Your task to perform on an android device: Add acer predator to the cart on bestbuy.com, then select checkout. Image 0: 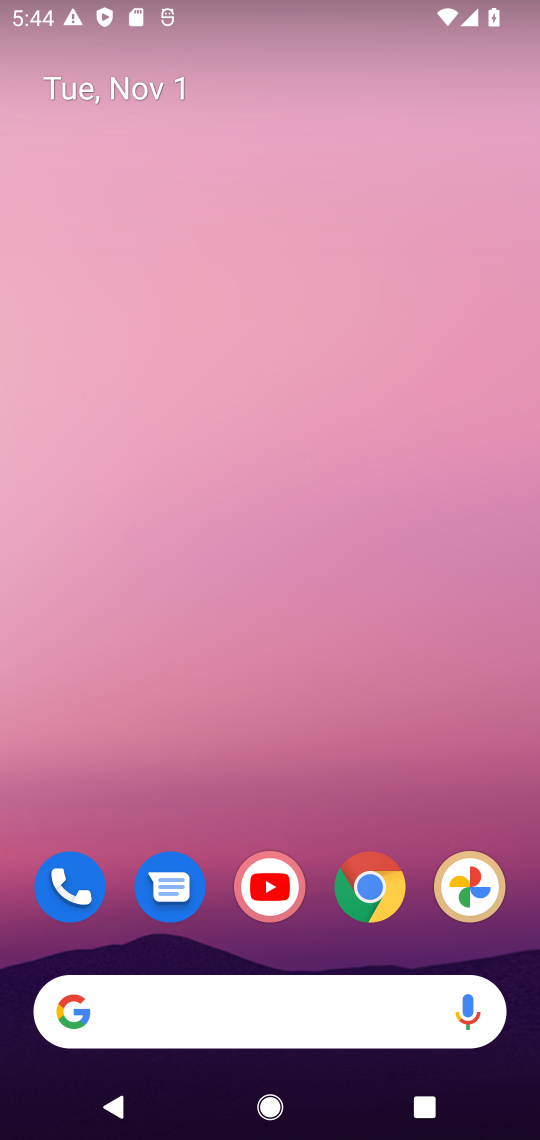
Step 0: press home button
Your task to perform on an android device: Add acer predator to the cart on bestbuy.com, then select checkout. Image 1: 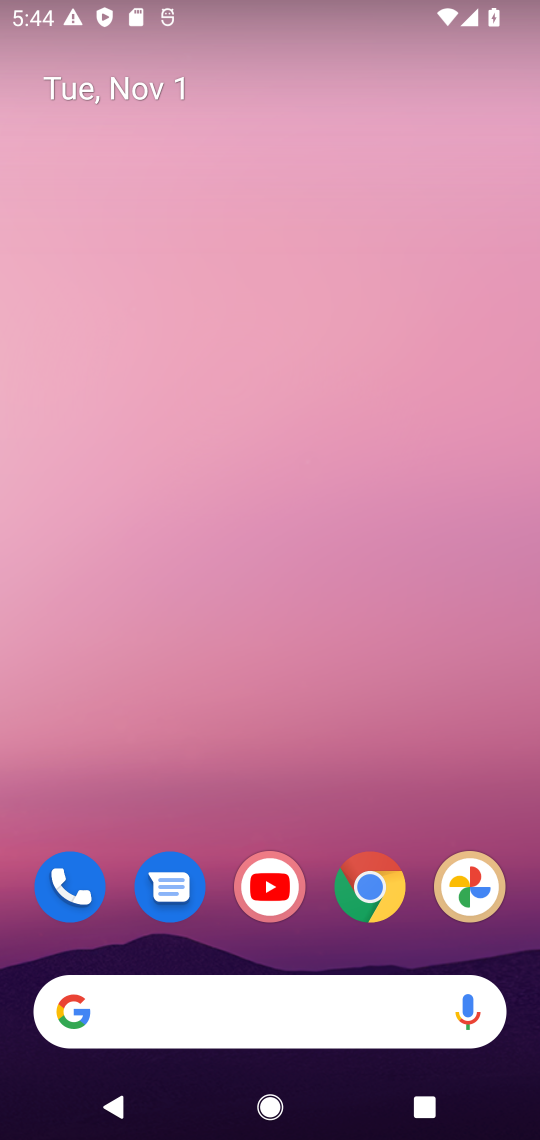
Step 1: drag from (320, 836) to (354, 0)
Your task to perform on an android device: Add acer predator to the cart on bestbuy.com, then select checkout. Image 2: 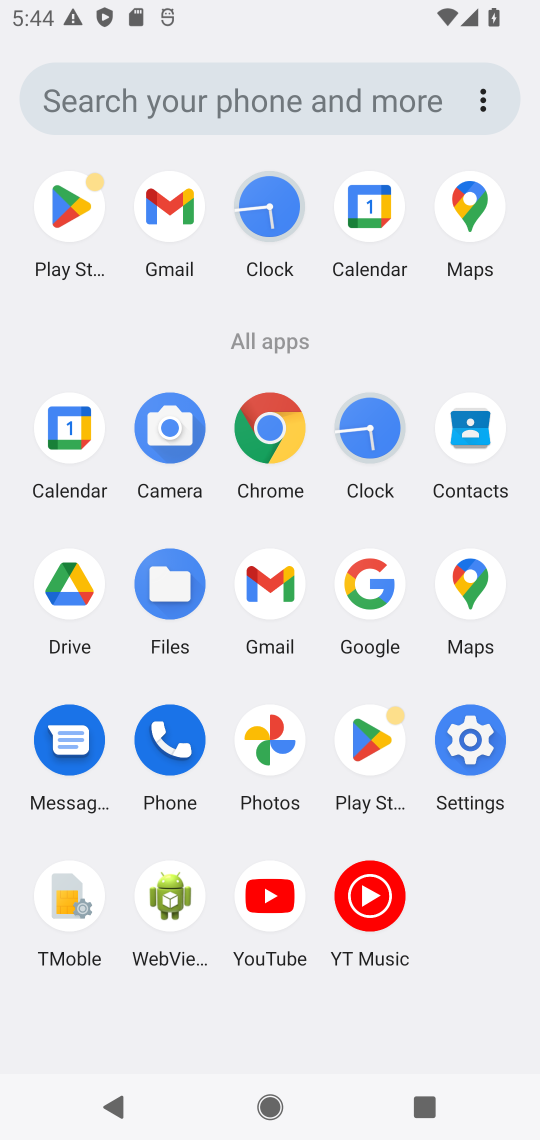
Step 2: click (265, 417)
Your task to perform on an android device: Add acer predator to the cart on bestbuy.com, then select checkout. Image 3: 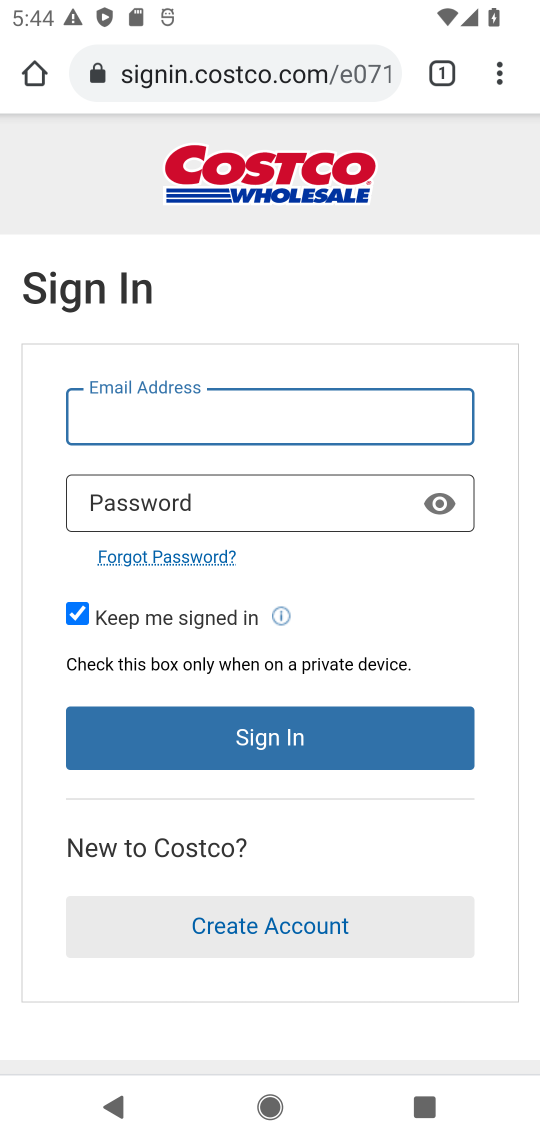
Step 3: click (194, 59)
Your task to perform on an android device: Add acer predator to the cart on bestbuy.com, then select checkout. Image 4: 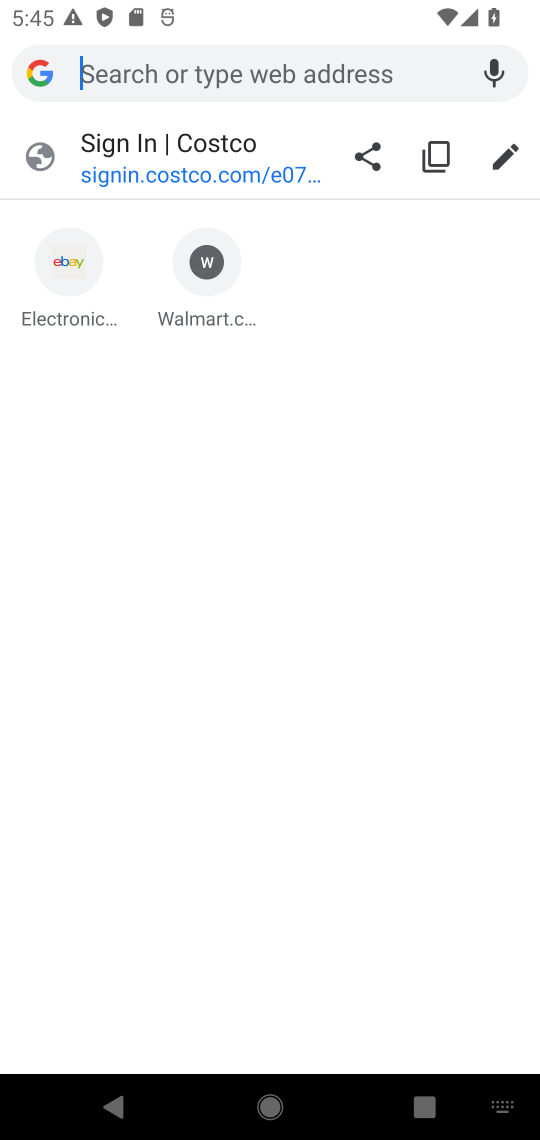
Step 4: type "bestbuy.com"
Your task to perform on an android device: Add acer predator to the cart on bestbuy.com, then select checkout. Image 5: 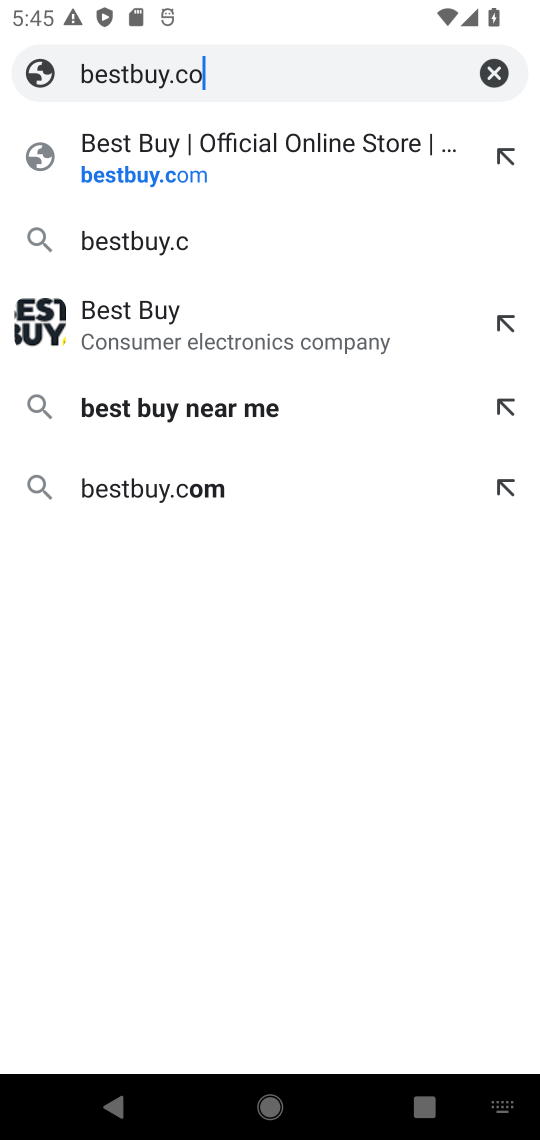
Step 5: type ""
Your task to perform on an android device: Add acer predator to the cart on bestbuy.com, then select checkout. Image 6: 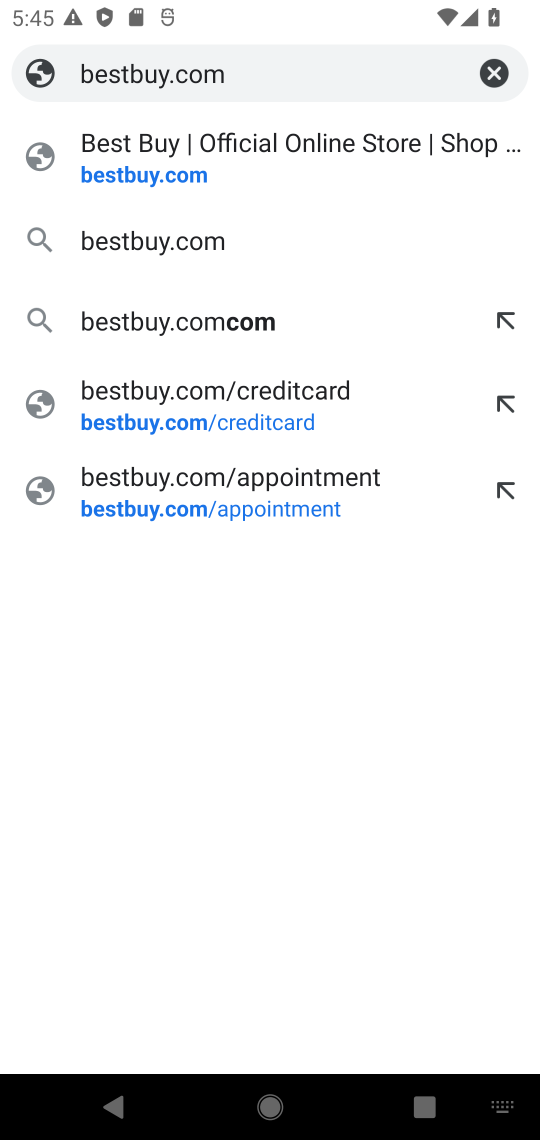
Step 6: click (245, 178)
Your task to perform on an android device: Add acer predator to the cart on bestbuy.com, then select checkout. Image 7: 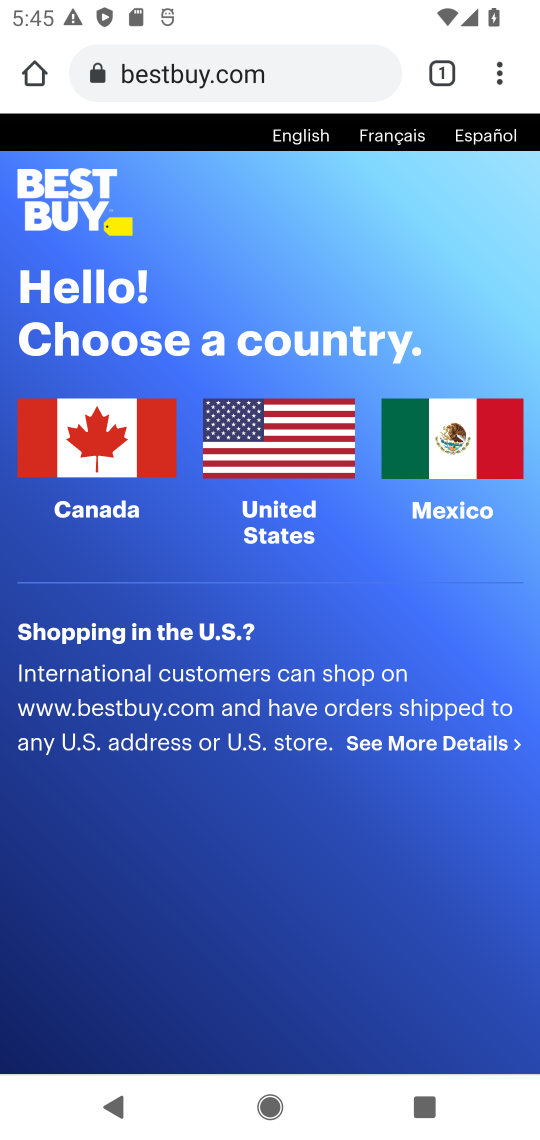
Step 7: click (294, 435)
Your task to perform on an android device: Add acer predator to the cart on bestbuy.com, then select checkout. Image 8: 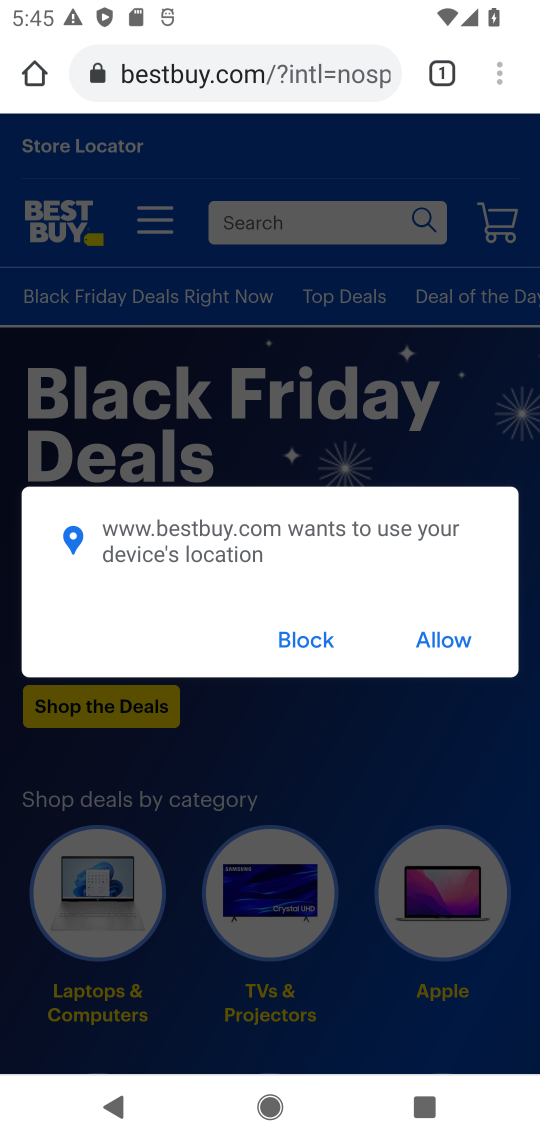
Step 8: click (437, 640)
Your task to perform on an android device: Add acer predator to the cart on bestbuy.com, then select checkout. Image 9: 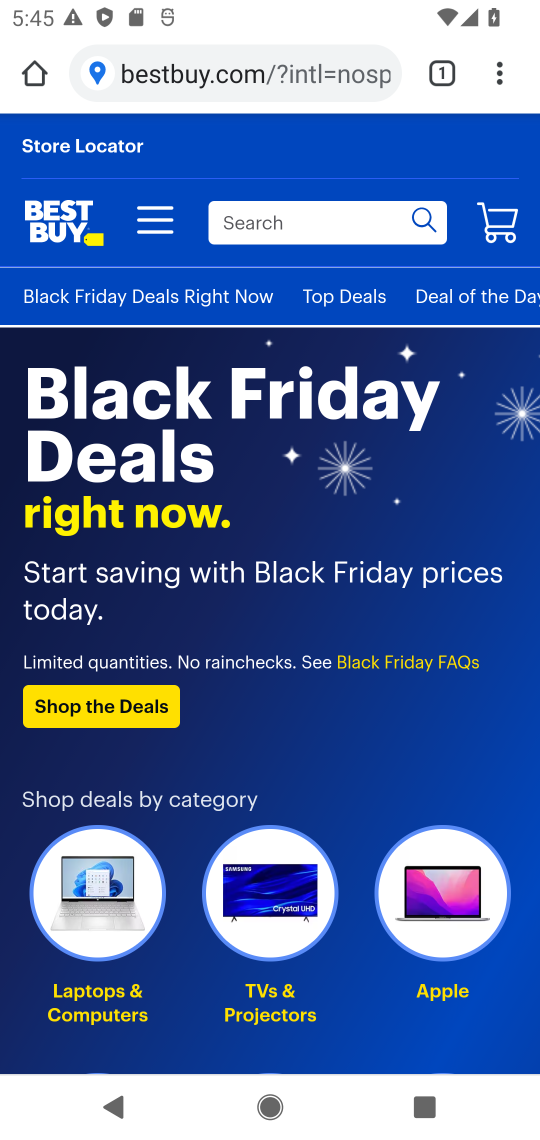
Step 9: drag from (339, 797) to (366, 189)
Your task to perform on an android device: Add acer predator to the cart on bestbuy.com, then select checkout. Image 10: 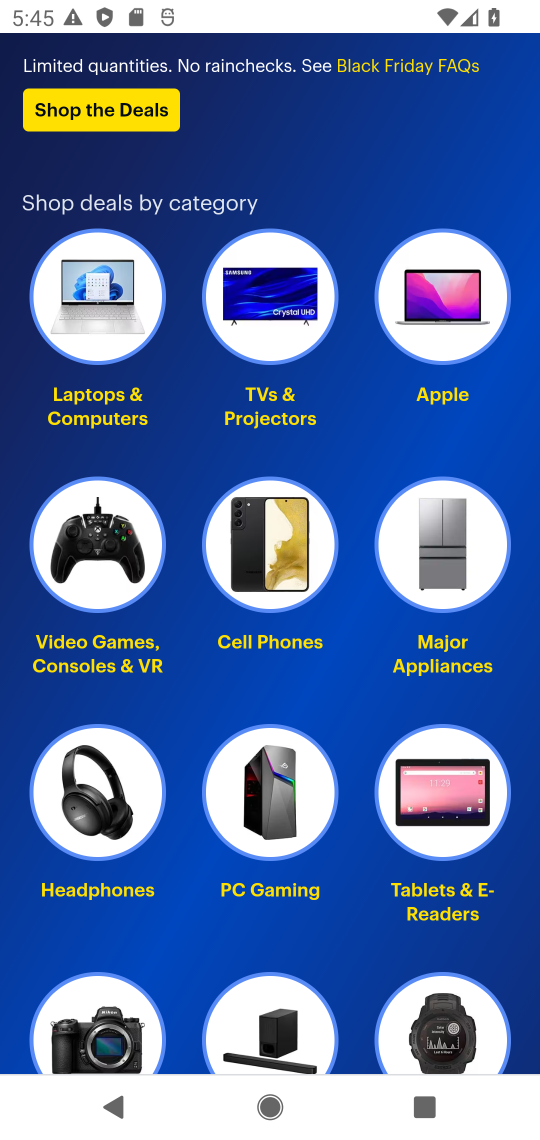
Step 10: drag from (354, 479) to (349, 855)
Your task to perform on an android device: Add acer predator to the cart on bestbuy.com, then select checkout. Image 11: 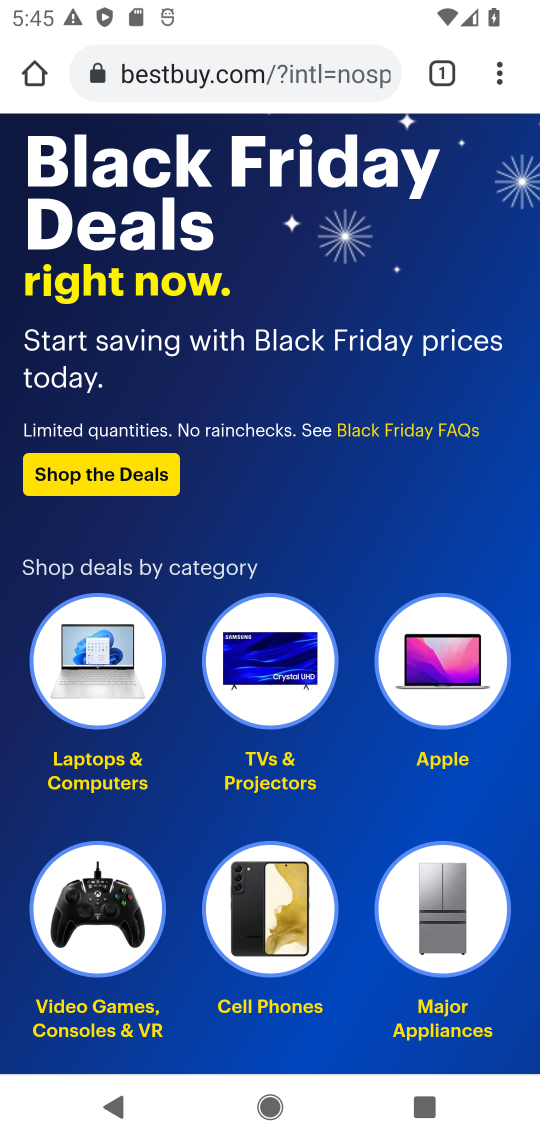
Step 11: drag from (300, 274) to (281, 819)
Your task to perform on an android device: Add acer predator to the cart on bestbuy.com, then select checkout. Image 12: 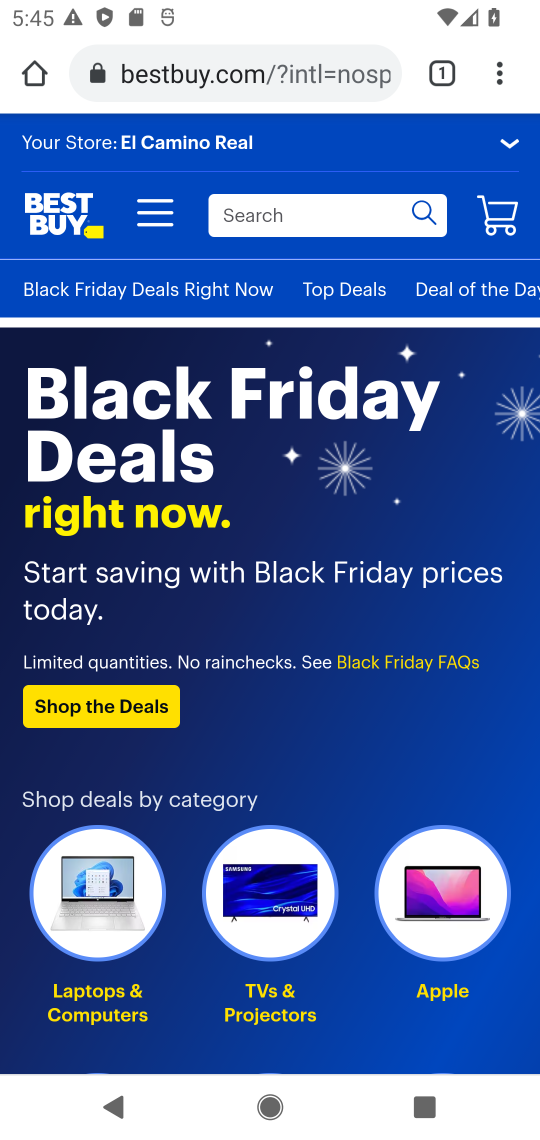
Step 12: click (270, 200)
Your task to perform on an android device: Add acer predator to the cart on bestbuy.com, then select checkout. Image 13: 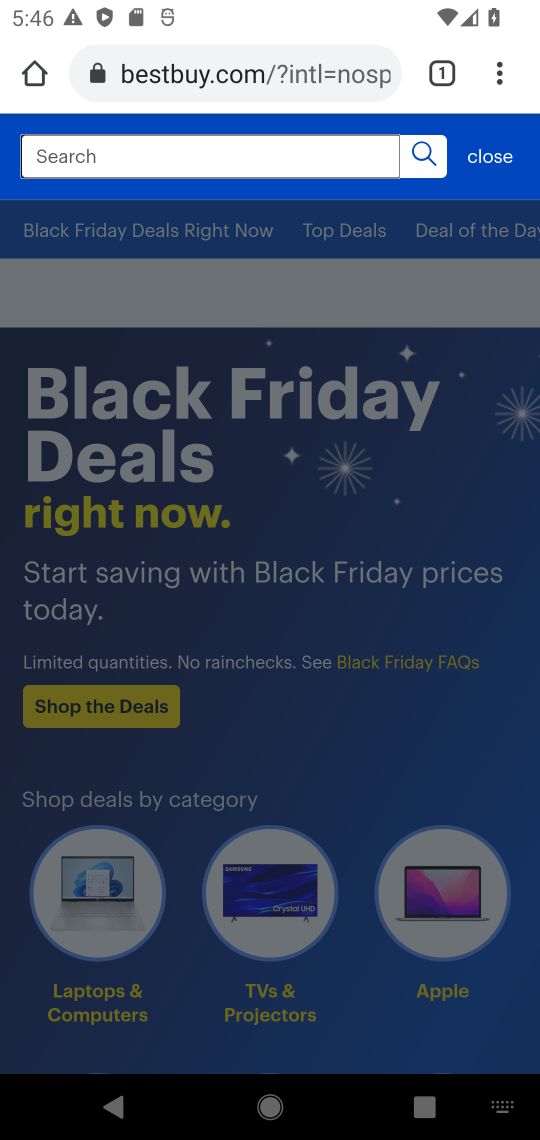
Step 13: type "acer predator"
Your task to perform on an android device: Add acer predator to the cart on bestbuy.com, then select checkout. Image 14: 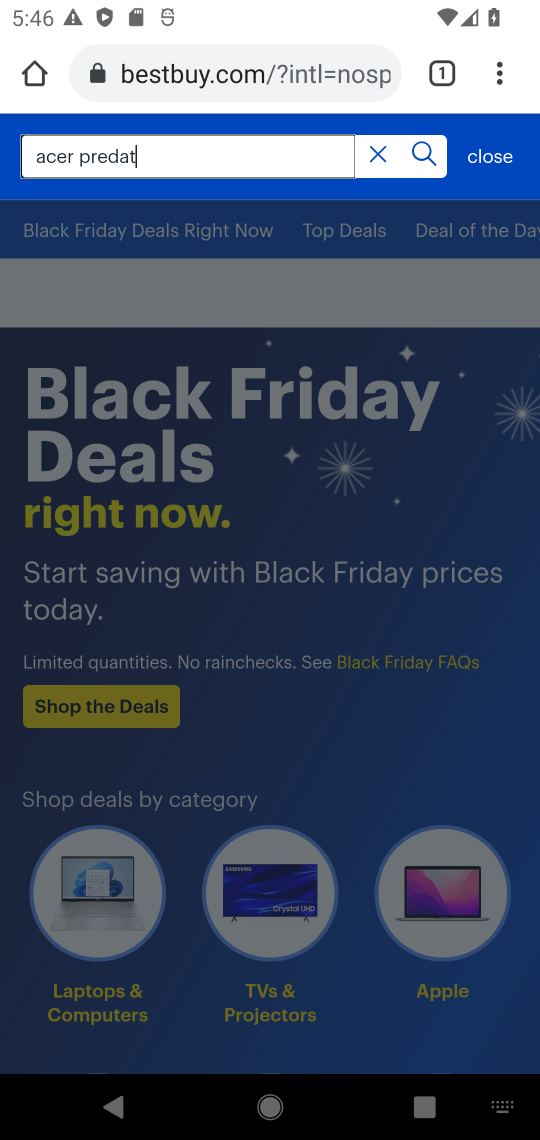
Step 14: type ""
Your task to perform on an android device: Add acer predator to the cart on bestbuy.com, then select checkout. Image 15: 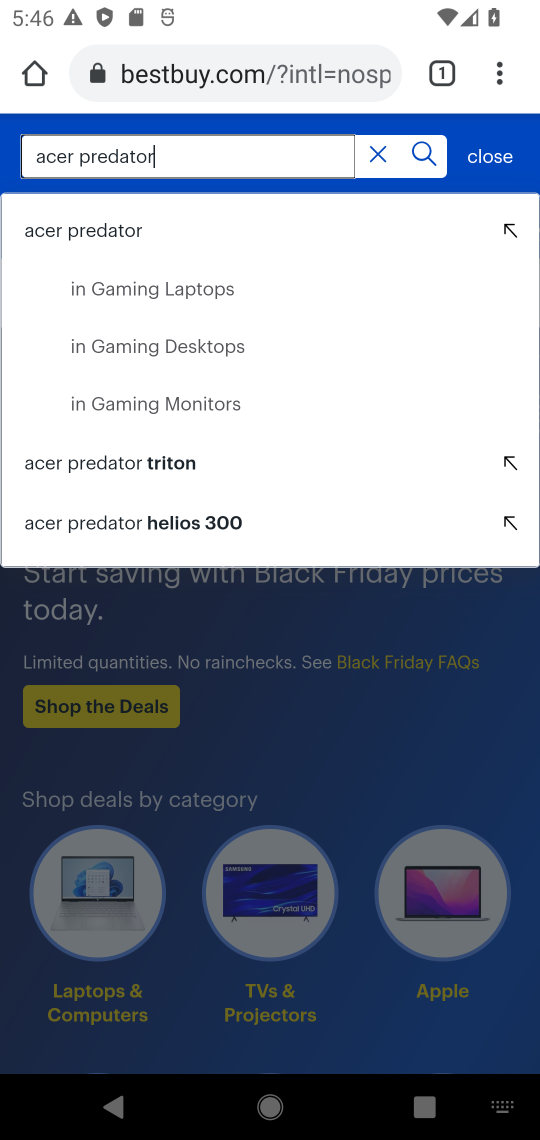
Step 15: click (130, 228)
Your task to perform on an android device: Add acer predator to the cart on bestbuy.com, then select checkout. Image 16: 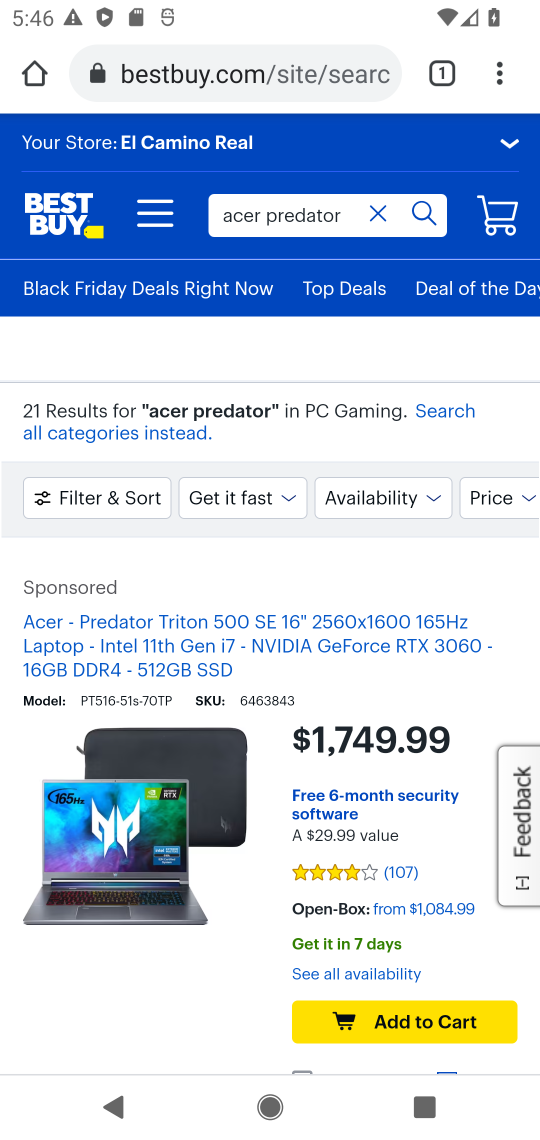
Step 16: click (192, 620)
Your task to perform on an android device: Add acer predator to the cart on bestbuy.com, then select checkout. Image 17: 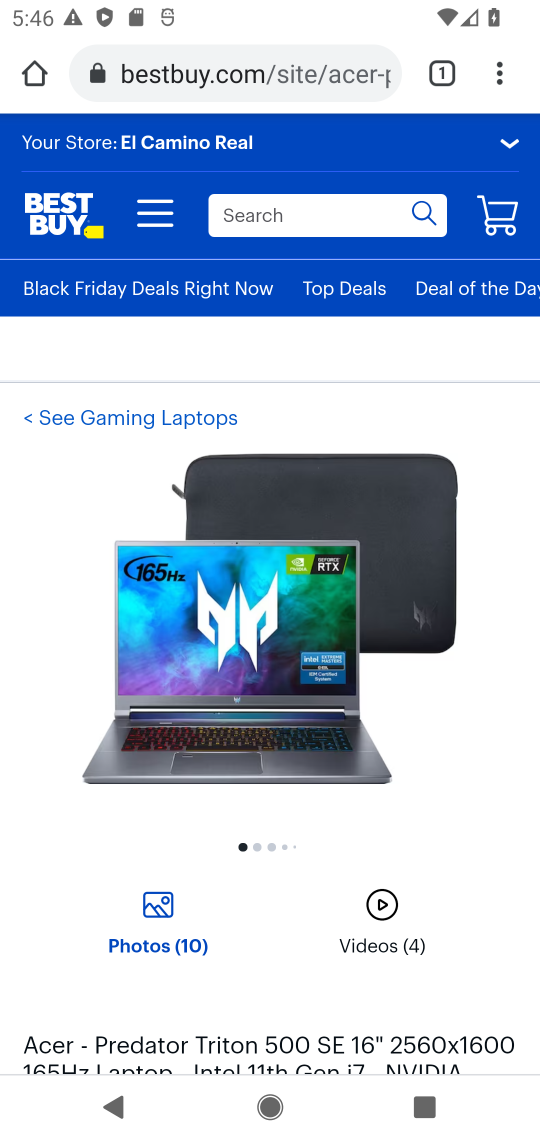
Step 17: drag from (289, 956) to (296, 350)
Your task to perform on an android device: Add acer predator to the cart on bestbuy.com, then select checkout. Image 18: 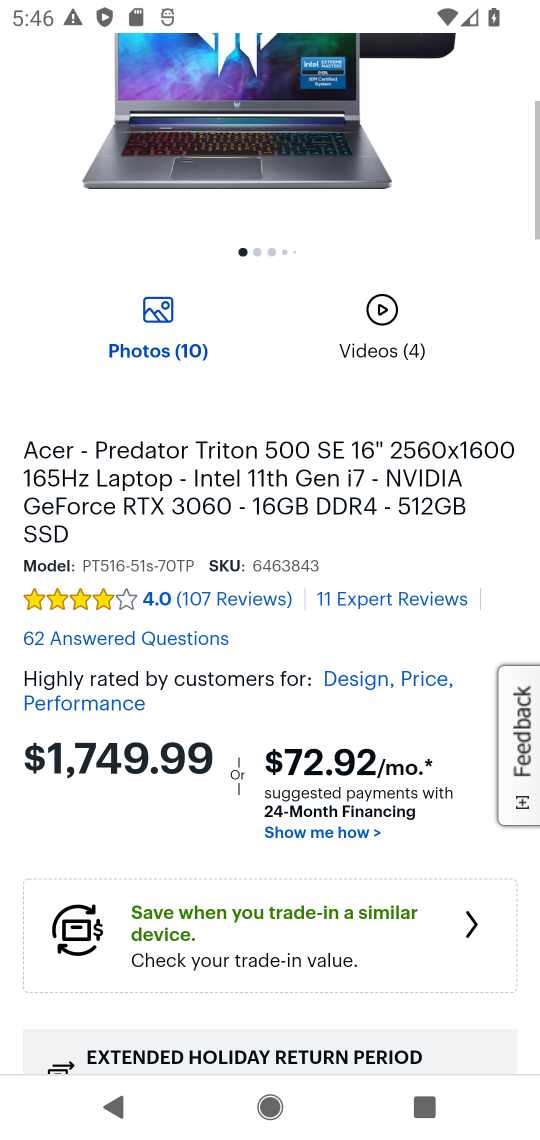
Step 18: drag from (342, 761) to (379, 439)
Your task to perform on an android device: Add acer predator to the cart on bestbuy.com, then select checkout. Image 19: 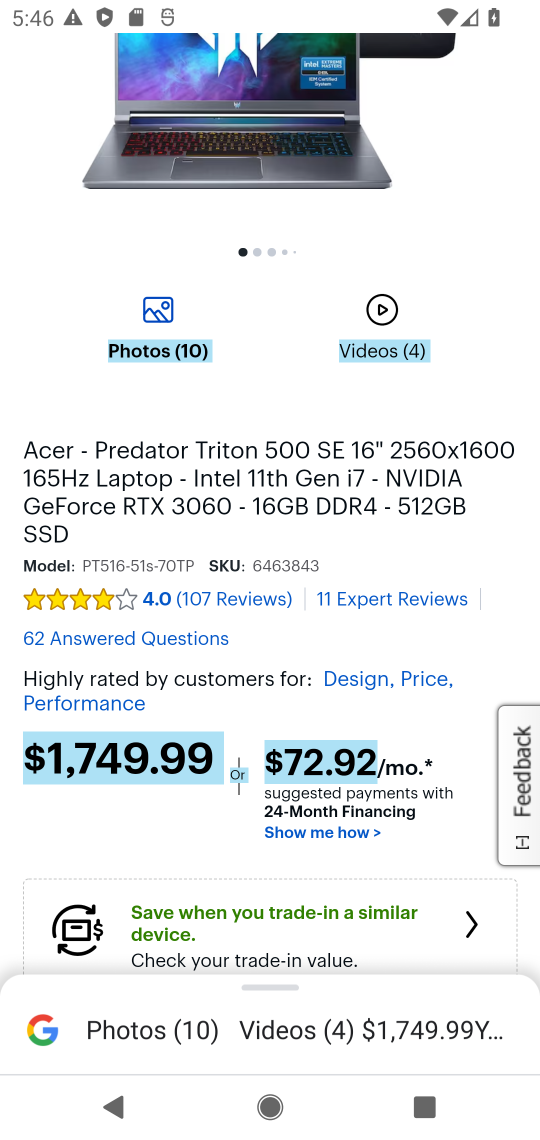
Step 19: drag from (354, 840) to (370, 476)
Your task to perform on an android device: Add acer predator to the cart on bestbuy.com, then select checkout. Image 20: 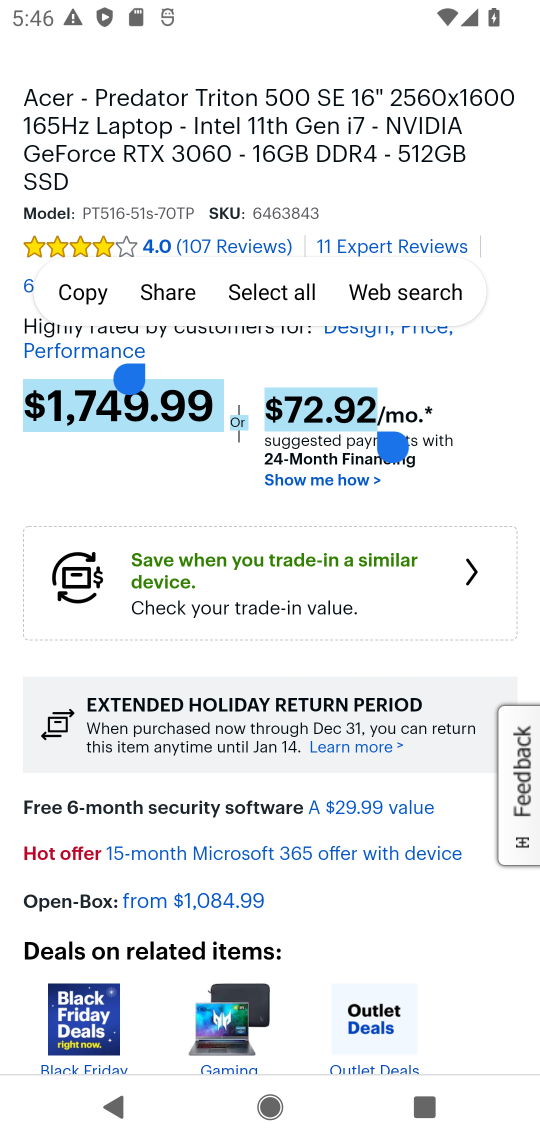
Step 20: click (428, 874)
Your task to perform on an android device: Add acer predator to the cart on bestbuy.com, then select checkout. Image 21: 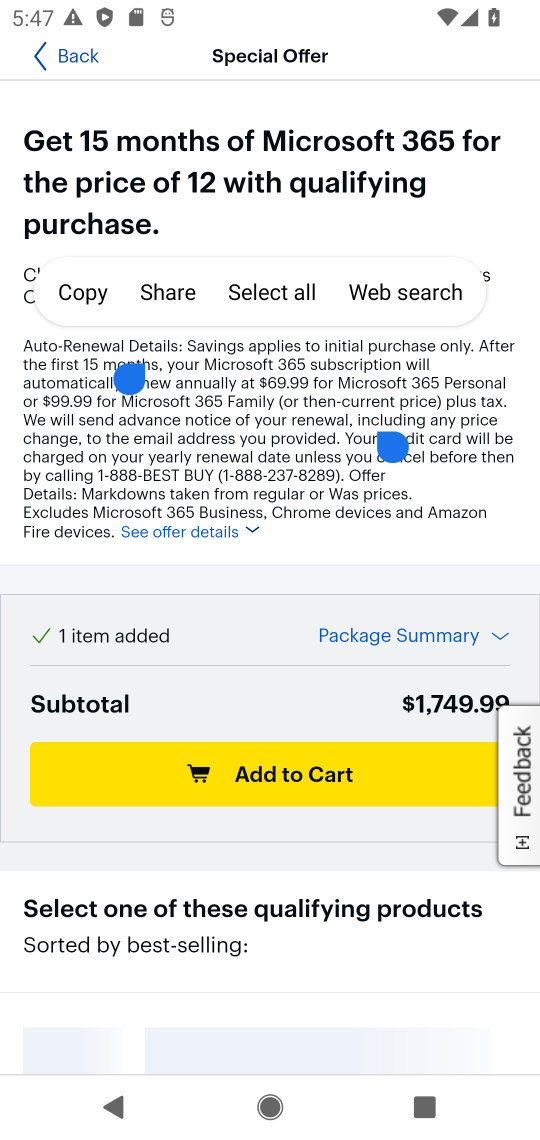
Step 21: drag from (407, 943) to (402, 547)
Your task to perform on an android device: Add acer predator to the cart on bestbuy.com, then select checkout. Image 22: 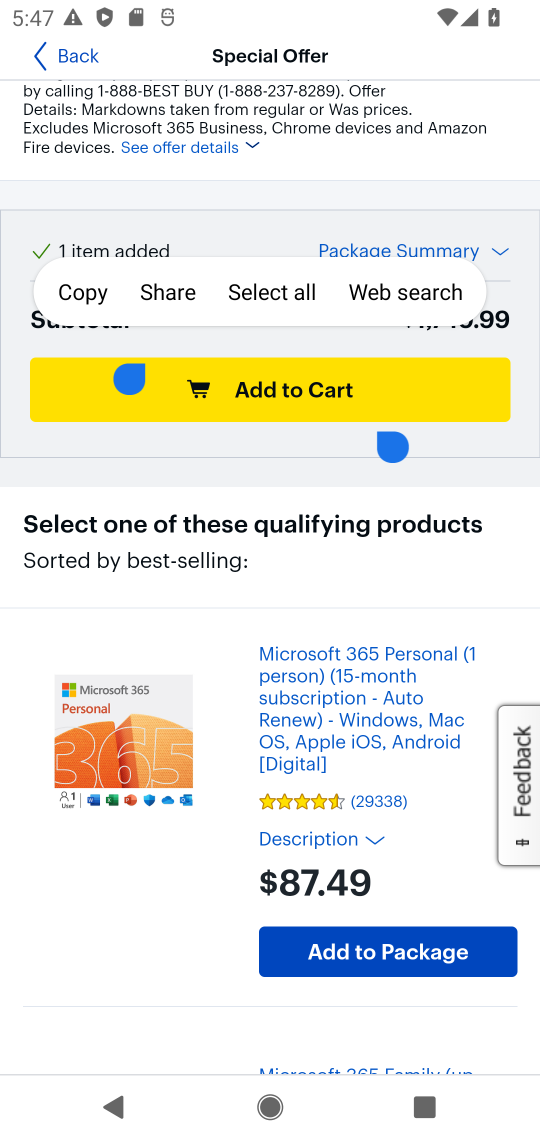
Step 22: click (290, 382)
Your task to perform on an android device: Add acer predator to the cart on bestbuy.com, then select checkout. Image 23: 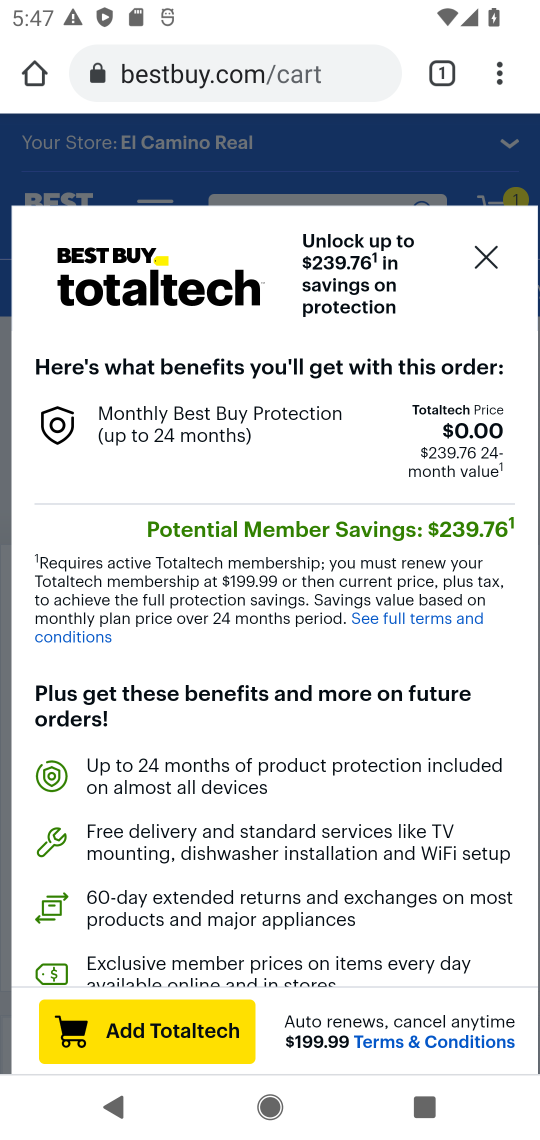
Step 23: click (483, 256)
Your task to perform on an android device: Add acer predator to the cart on bestbuy.com, then select checkout. Image 24: 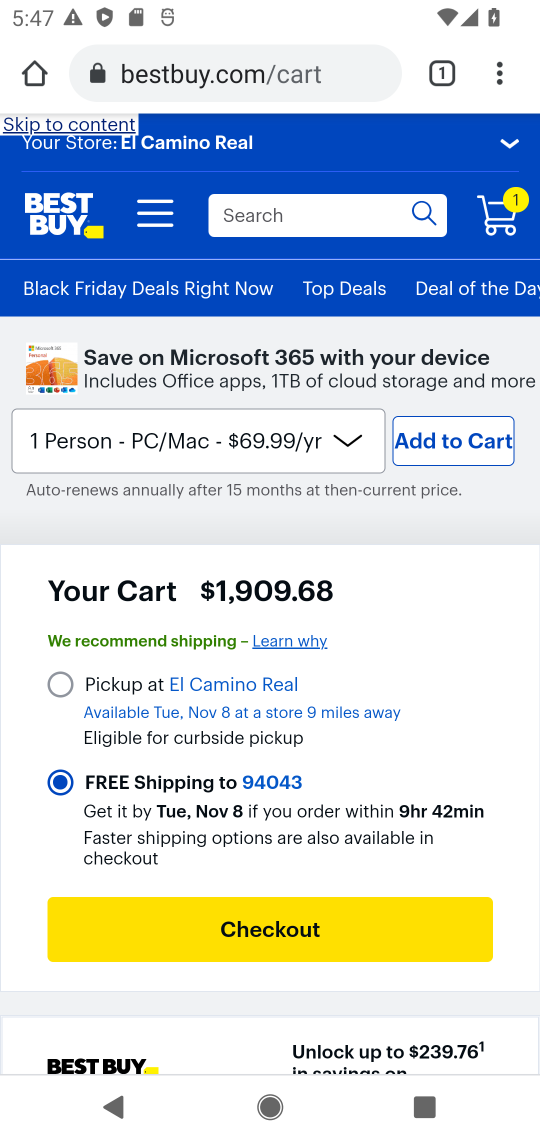
Step 24: click (510, 203)
Your task to perform on an android device: Add acer predator to the cart on bestbuy.com, then select checkout. Image 25: 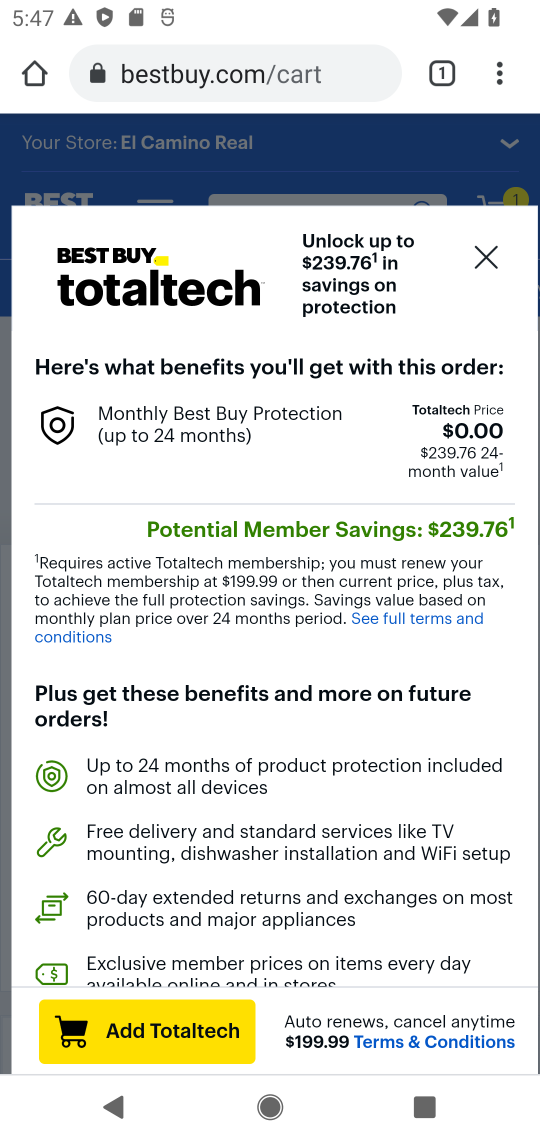
Step 25: click (489, 243)
Your task to perform on an android device: Add acer predator to the cart on bestbuy.com, then select checkout. Image 26: 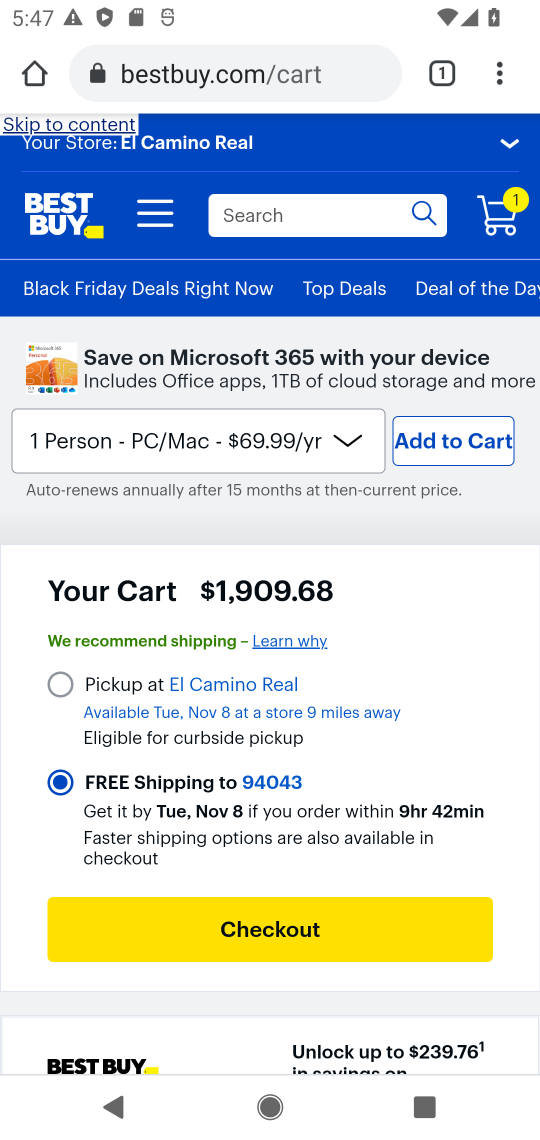
Step 26: click (501, 210)
Your task to perform on an android device: Add acer predator to the cart on bestbuy.com, then select checkout. Image 27: 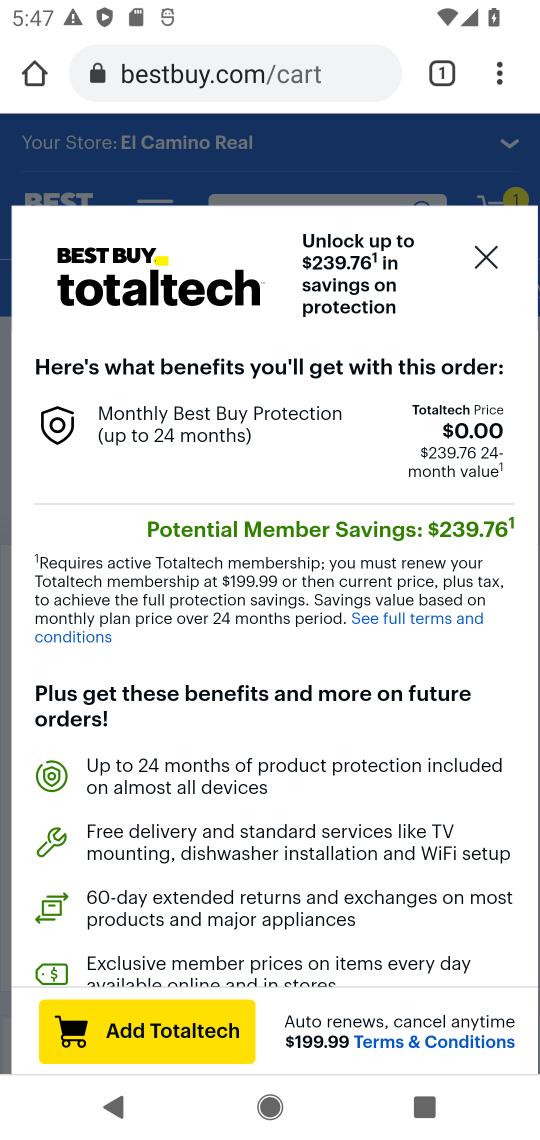
Step 27: drag from (260, 937) to (359, 282)
Your task to perform on an android device: Add acer predator to the cart on bestbuy.com, then select checkout. Image 28: 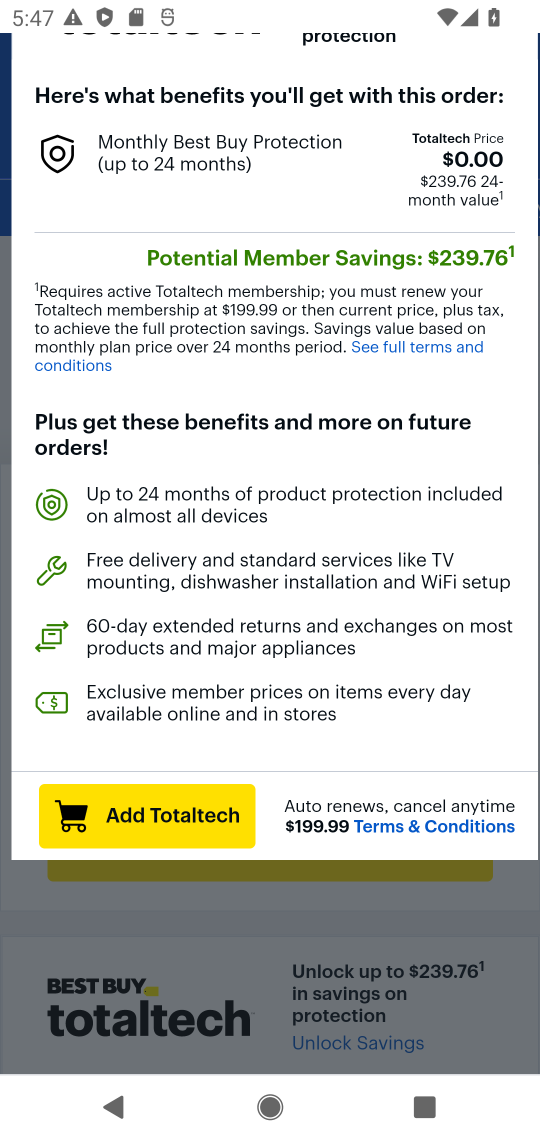
Step 28: click (138, 818)
Your task to perform on an android device: Add acer predator to the cart on bestbuy.com, then select checkout. Image 29: 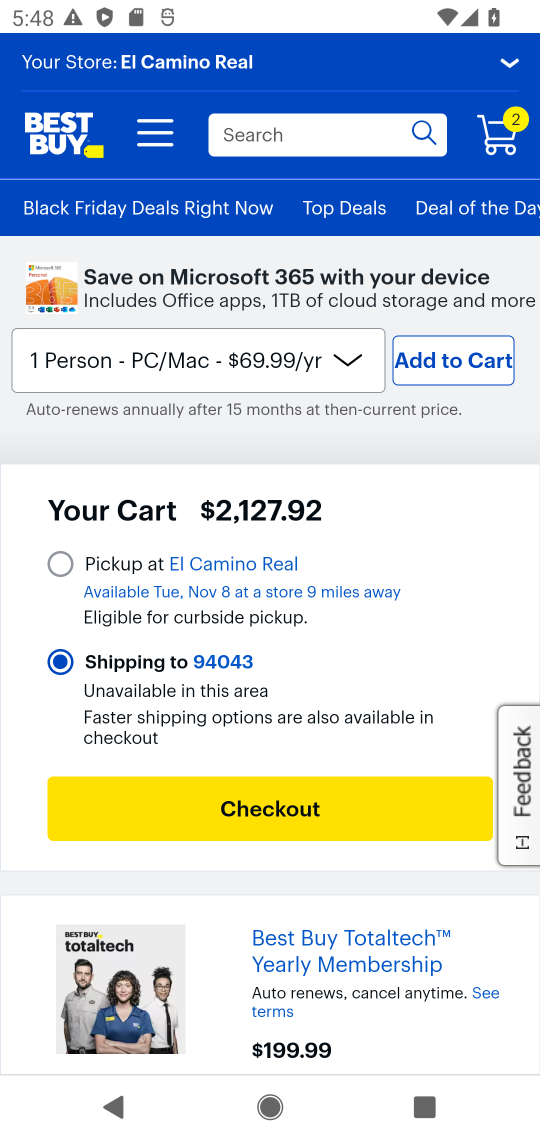
Step 29: click (261, 816)
Your task to perform on an android device: Add acer predator to the cart on bestbuy.com, then select checkout. Image 30: 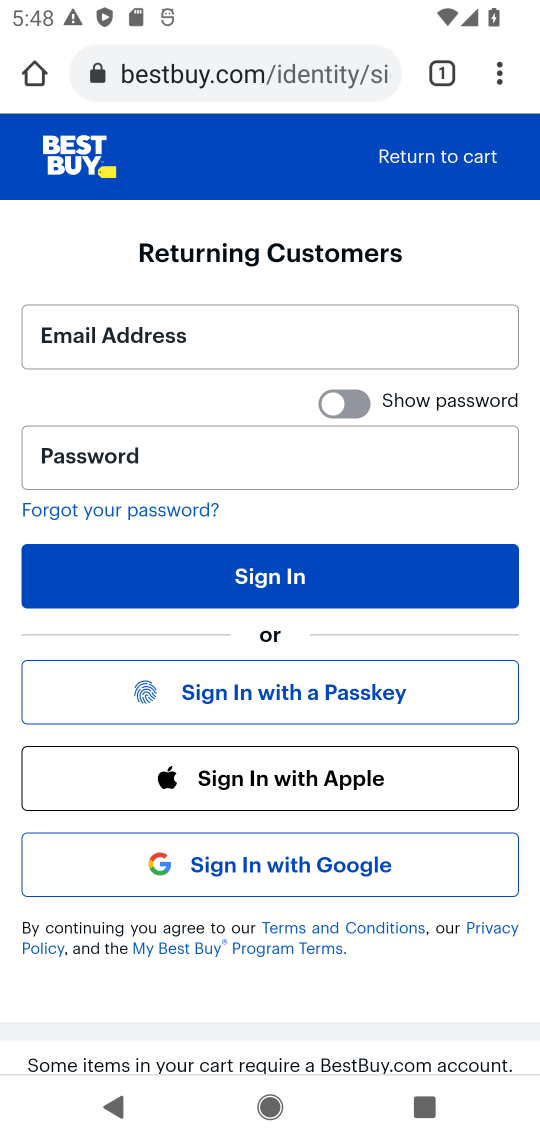
Step 30: task complete